Your task to perform on an android device: Open Google Maps Image 0: 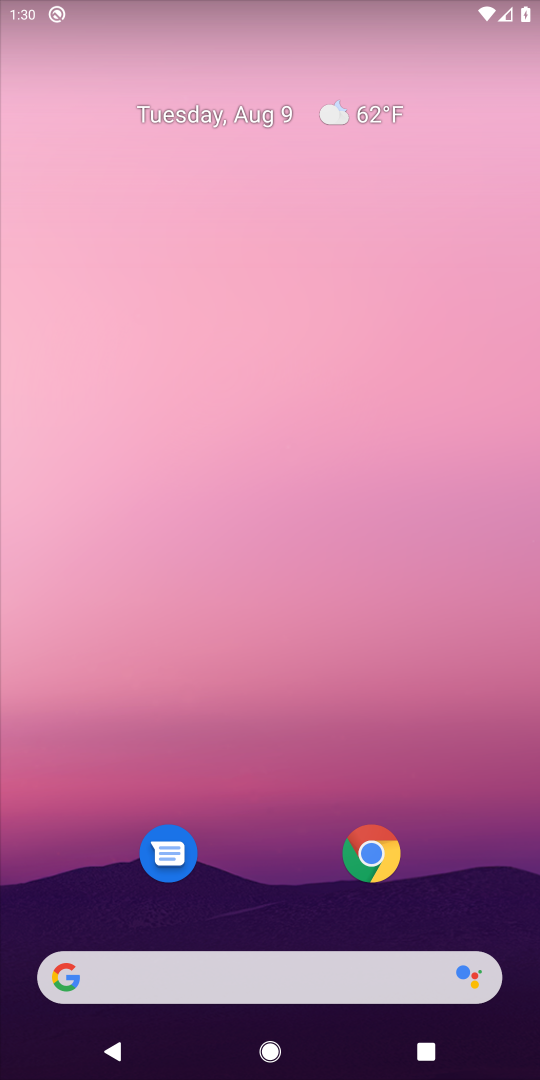
Step 0: press home button
Your task to perform on an android device: Open Google Maps Image 1: 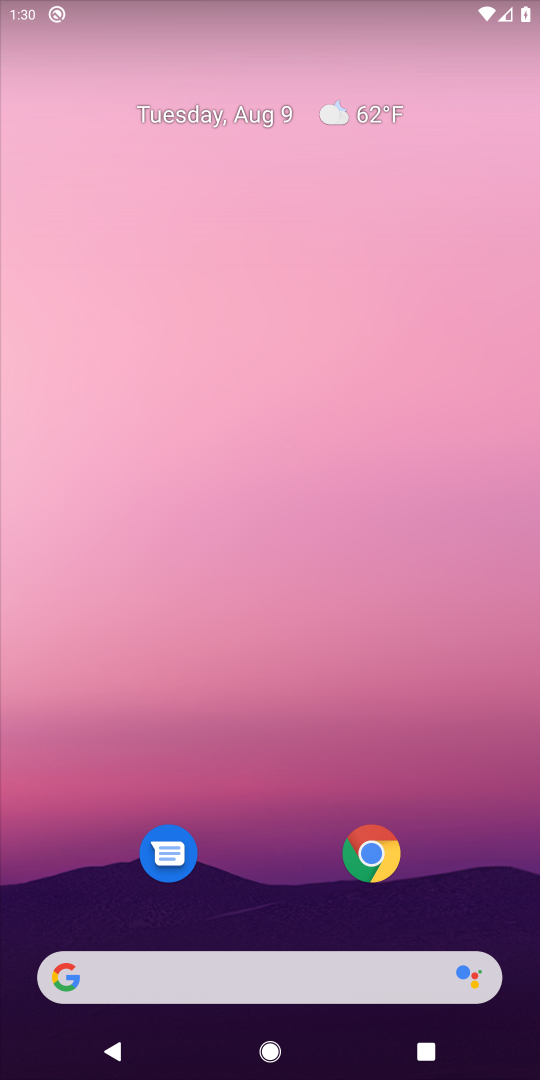
Step 1: drag from (274, 882) to (309, 223)
Your task to perform on an android device: Open Google Maps Image 2: 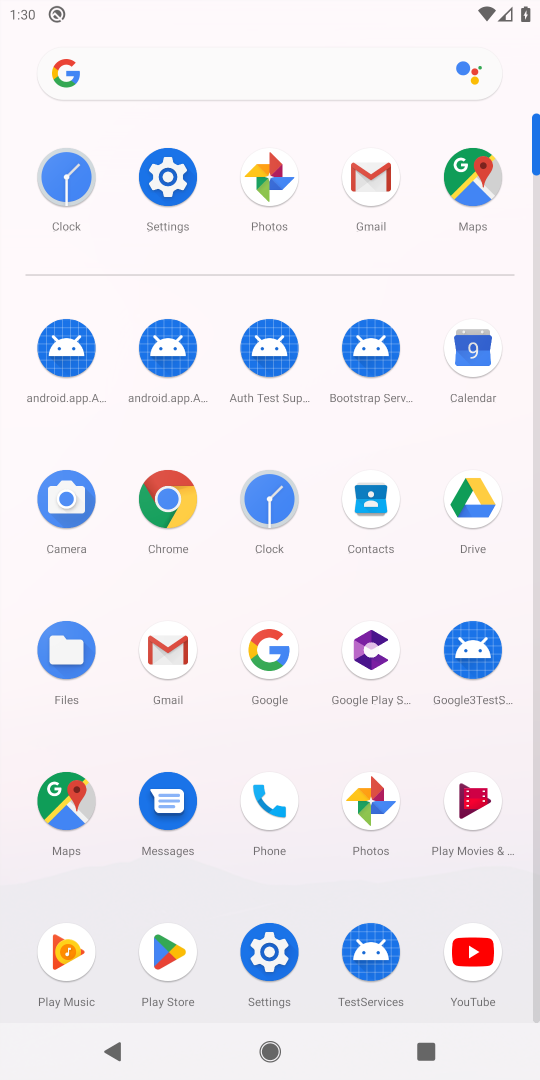
Step 2: click (57, 803)
Your task to perform on an android device: Open Google Maps Image 3: 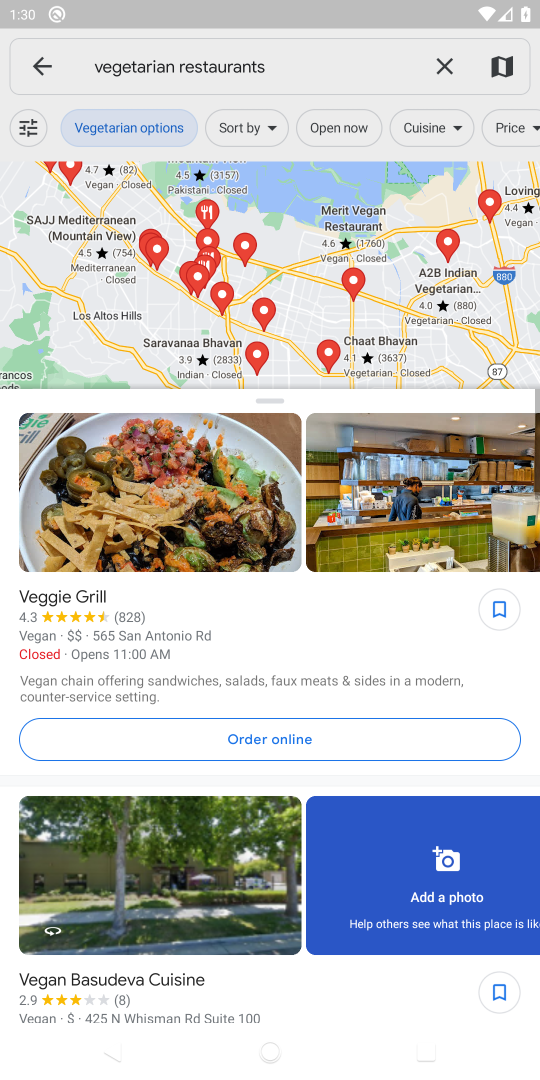
Step 3: click (35, 68)
Your task to perform on an android device: Open Google Maps Image 4: 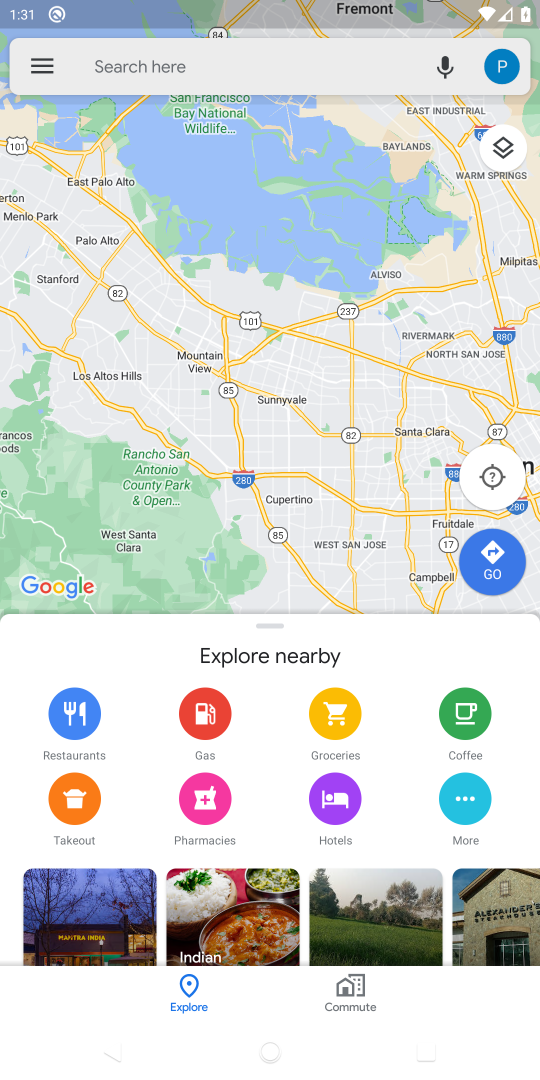
Step 4: task complete